Your task to perform on an android device: Add apple airpods pro to the cart on costco.com, then select checkout. Image 0: 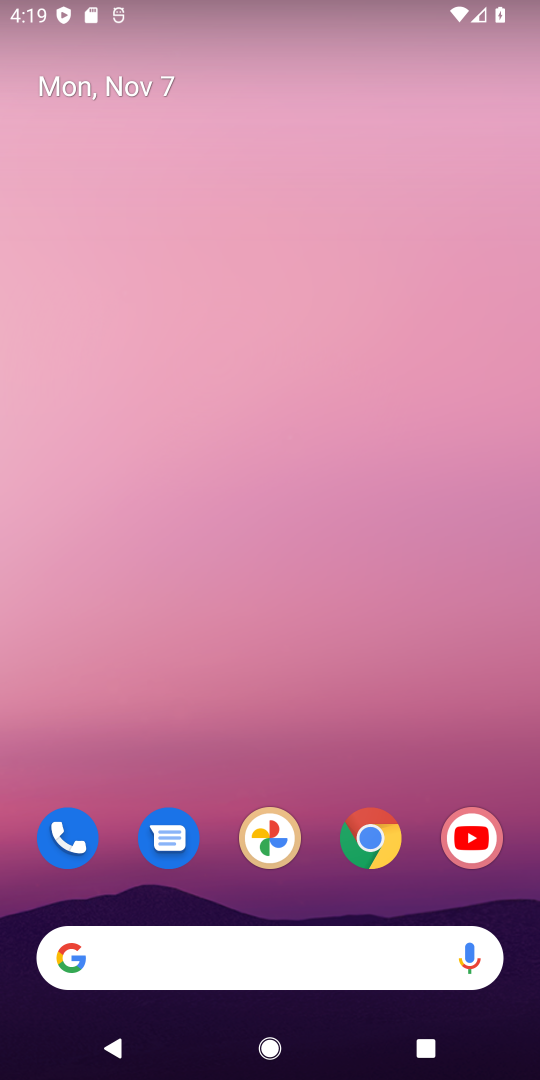
Step 0: click (367, 844)
Your task to perform on an android device: Add apple airpods pro to the cart on costco.com, then select checkout. Image 1: 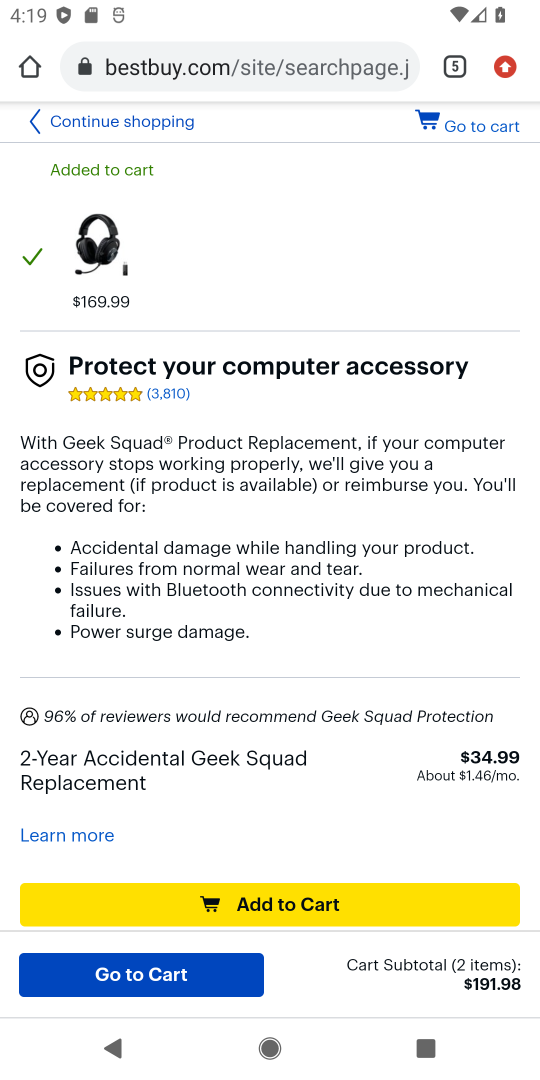
Step 1: click (452, 73)
Your task to perform on an android device: Add apple airpods pro to the cart on costco.com, then select checkout. Image 2: 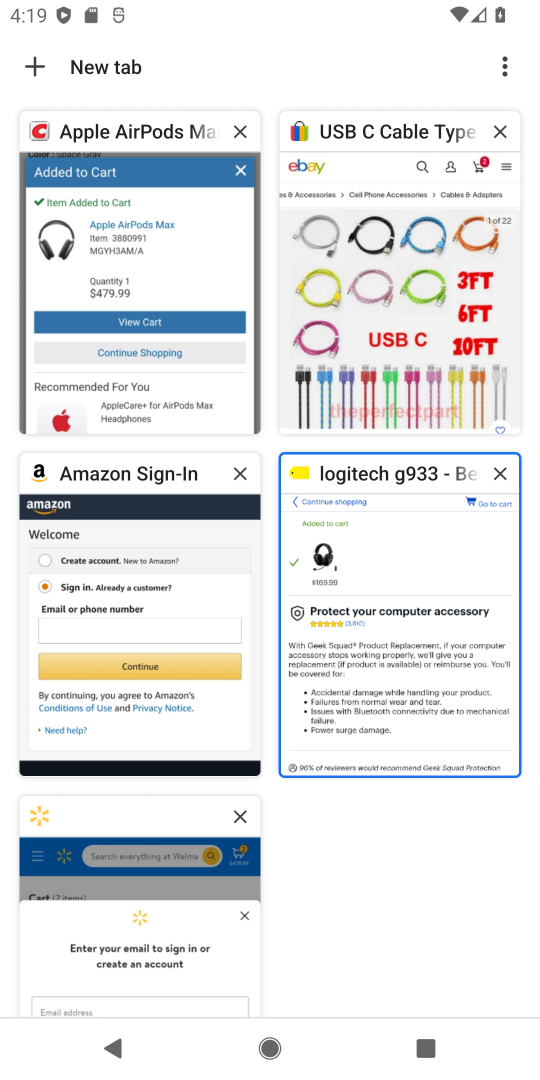
Step 2: click (115, 214)
Your task to perform on an android device: Add apple airpods pro to the cart on costco.com, then select checkout. Image 3: 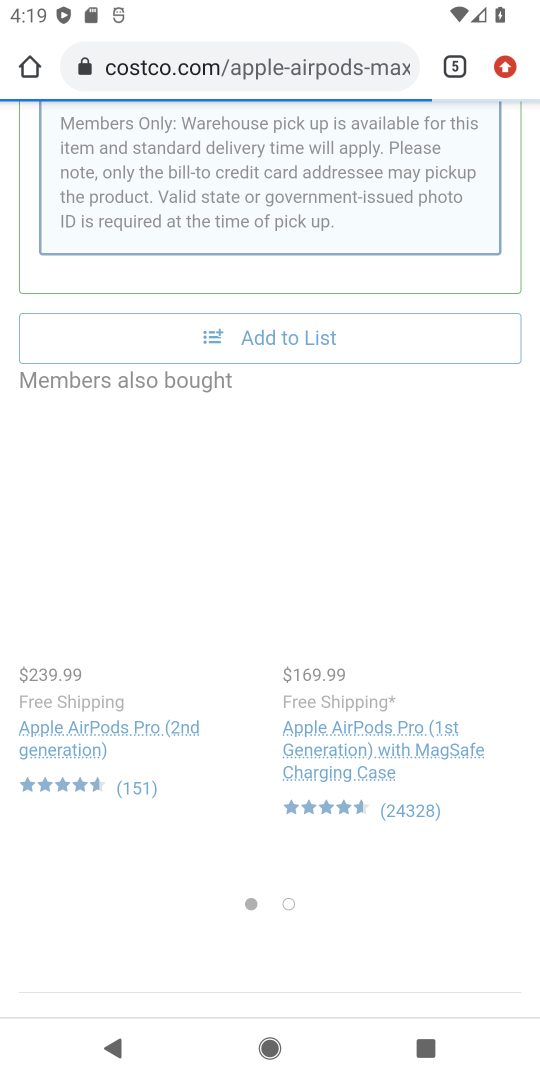
Step 3: drag from (402, 333) to (474, 991)
Your task to perform on an android device: Add apple airpods pro to the cart on costco.com, then select checkout. Image 4: 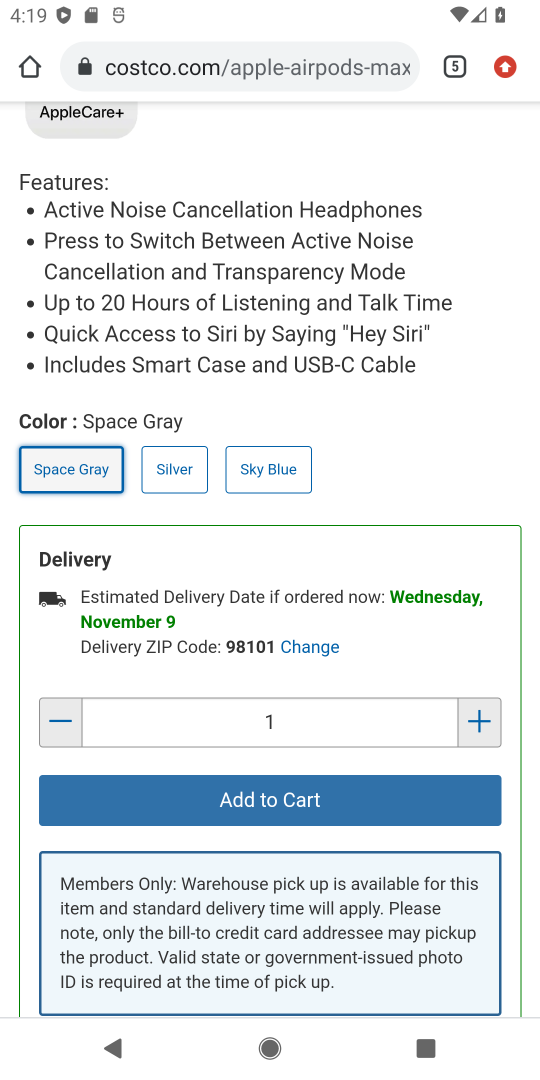
Step 4: drag from (233, 262) to (359, 838)
Your task to perform on an android device: Add apple airpods pro to the cart on costco.com, then select checkout. Image 5: 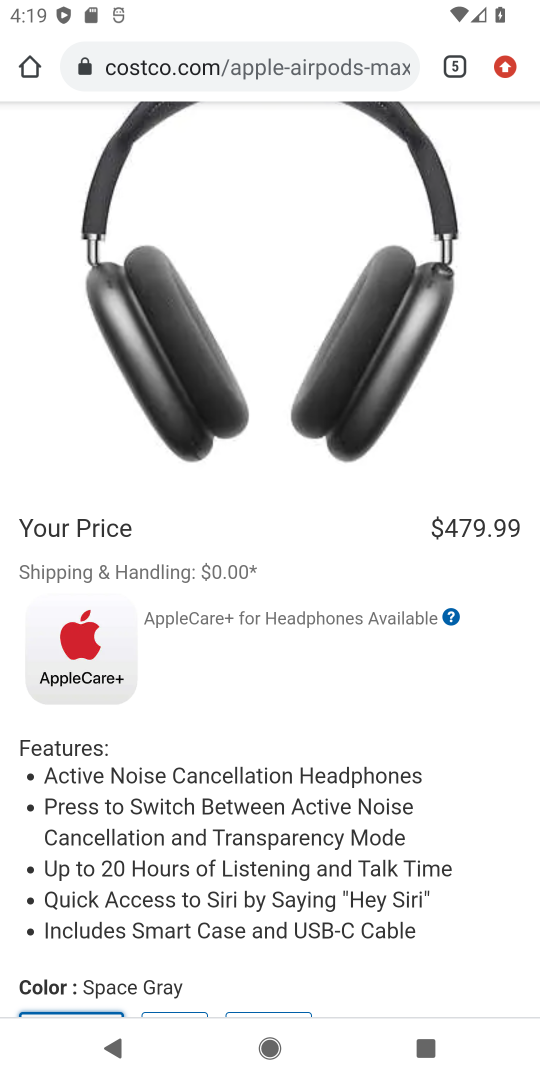
Step 5: click (363, 80)
Your task to perform on an android device: Add apple airpods pro to the cart on costco.com, then select checkout. Image 6: 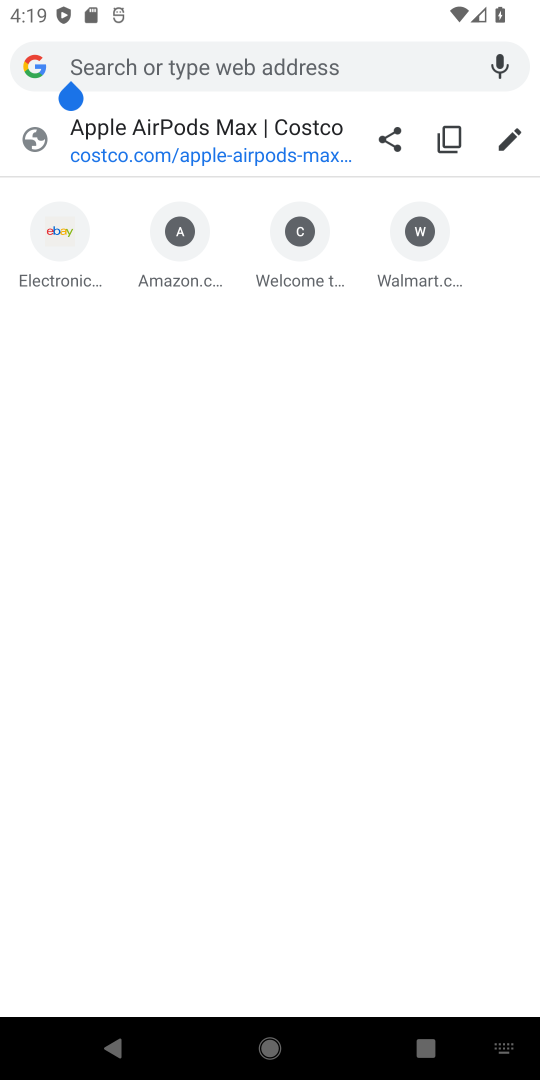
Step 6: drag from (356, 180) to (383, 691)
Your task to perform on an android device: Add apple airpods pro to the cart on costco.com, then select checkout. Image 7: 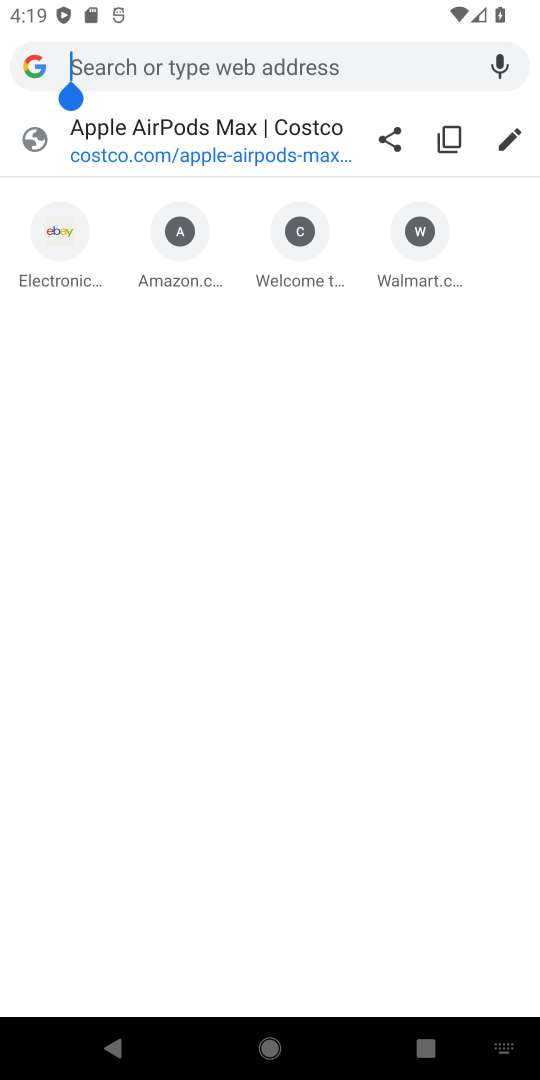
Step 7: click (277, 144)
Your task to perform on an android device: Add apple airpods pro to the cart on costco.com, then select checkout. Image 8: 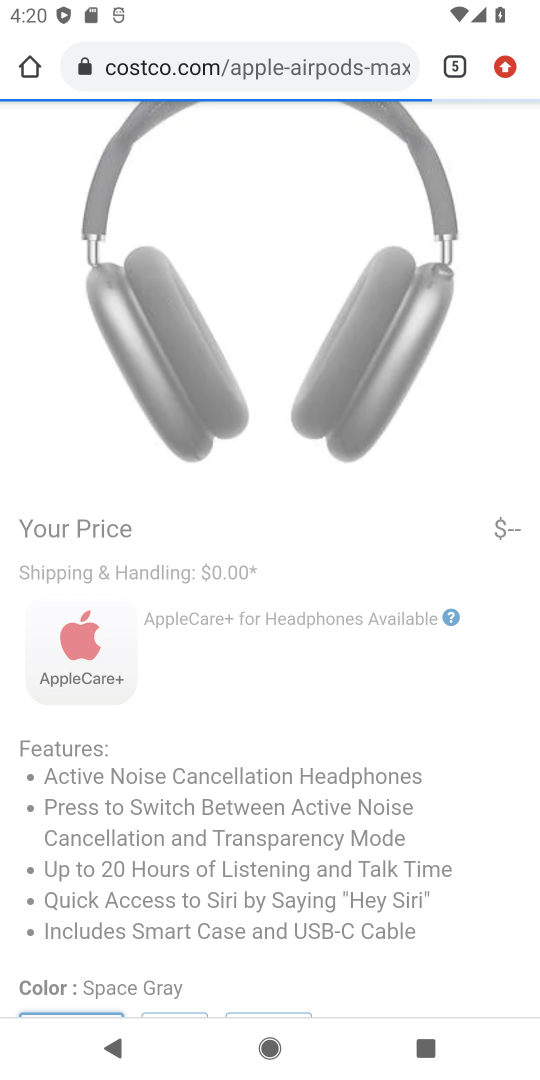
Step 8: drag from (198, 796) to (243, 293)
Your task to perform on an android device: Add apple airpods pro to the cart on costco.com, then select checkout. Image 9: 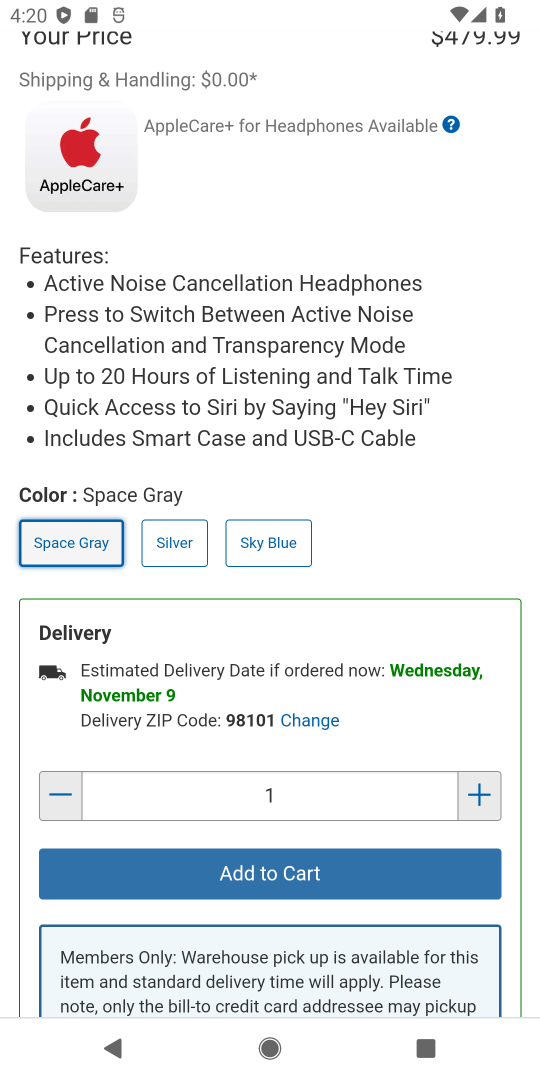
Step 9: click (313, 881)
Your task to perform on an android device: Add apple airpods pro to the cart on costco.com, then select checkout. Image 10: 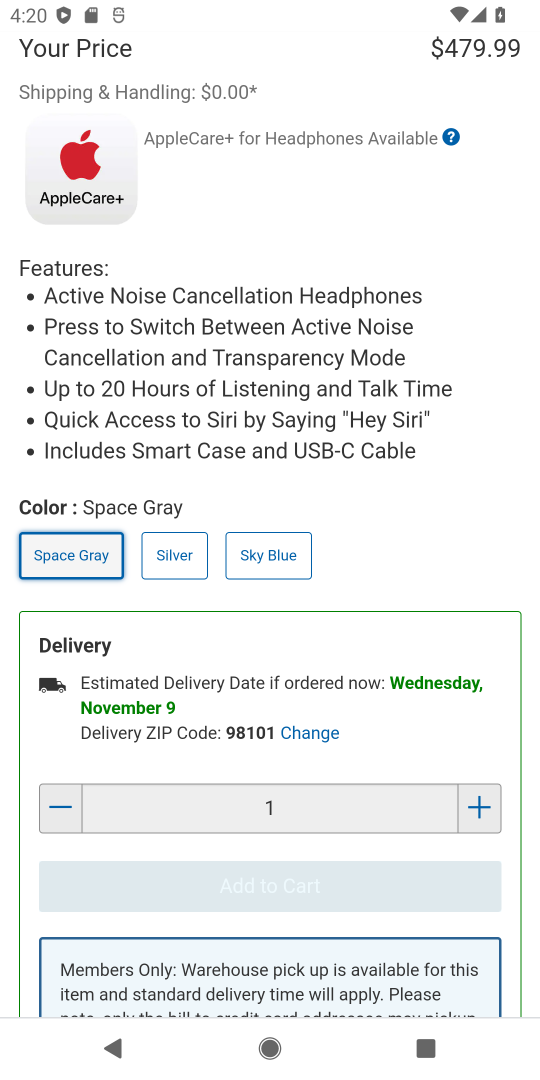
Step 10: drag from (397, 301) to (447, 771)
Your task to perform on an android device: Add apple airpods pro to the cart on costco.com, then select checkout. Image 11: 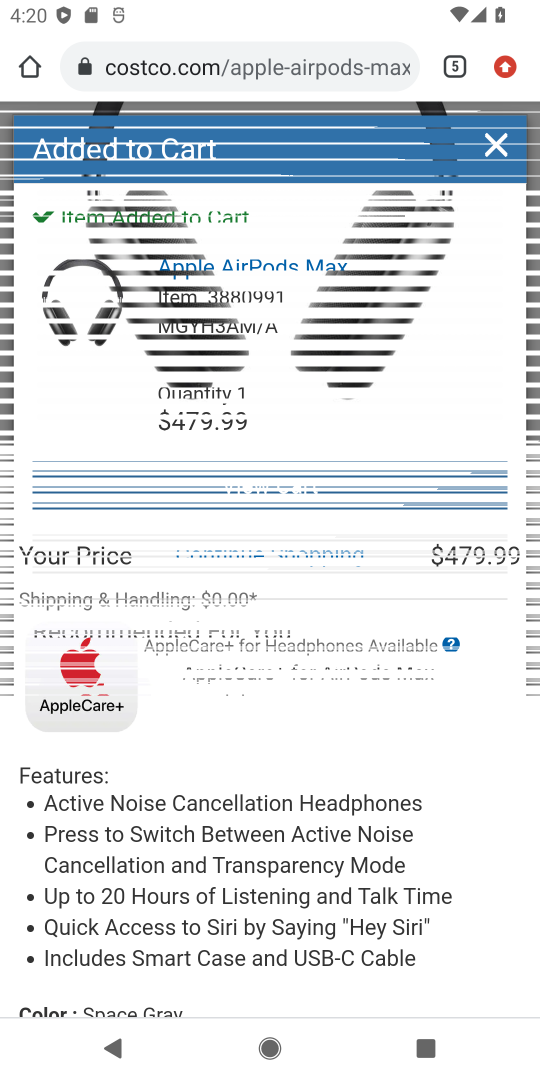
Step 11: click (315, 495)
Your task to perform on an android device: Add apple airpods pro to the cart on costco.com, then select checkout. Image 12: 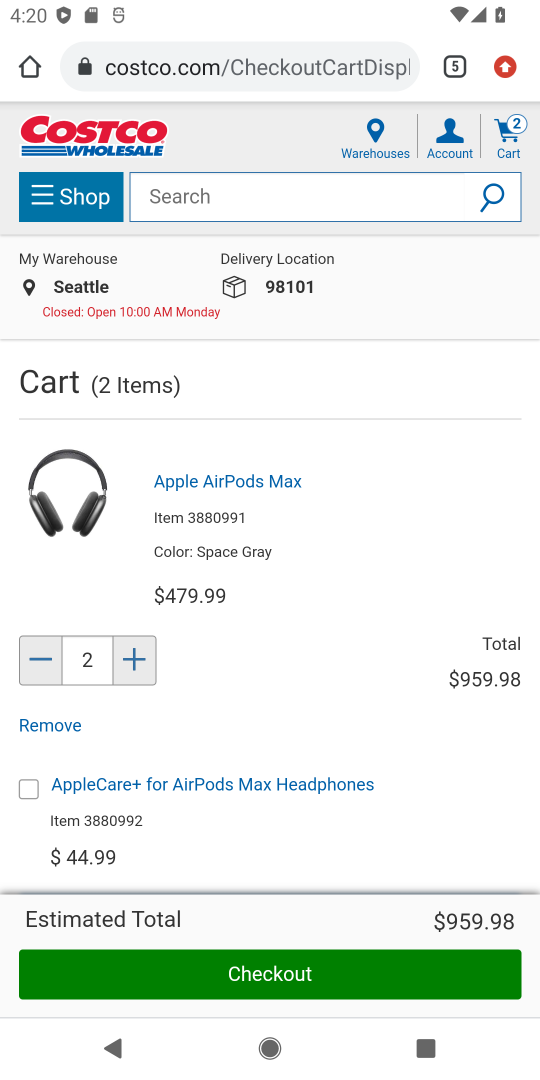
Step 12: click (303, 963)
Your task to perform on an android device: Add apple airpods pro to the cart on costco.com, then select checkout. Image 13: 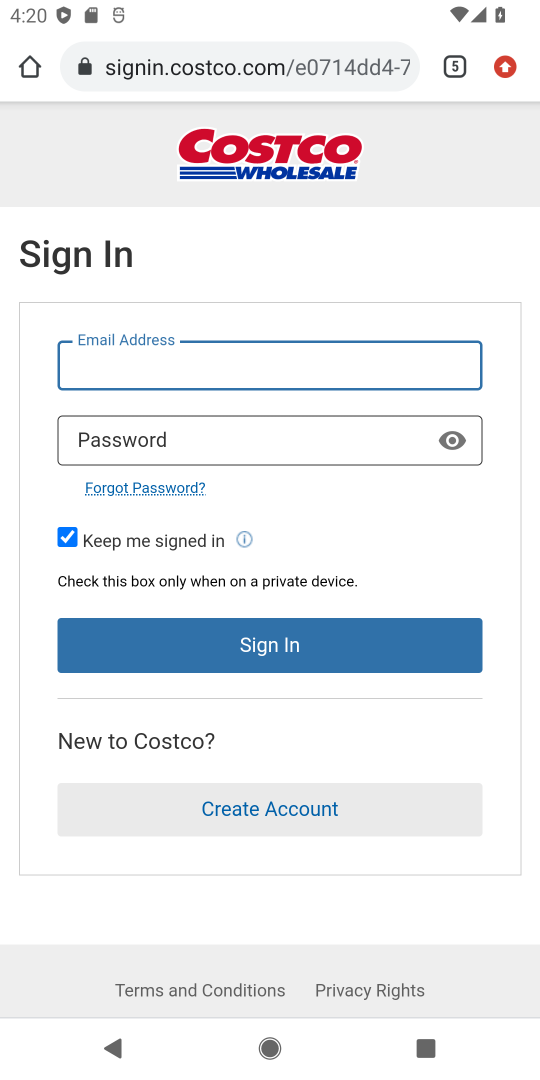
Step 13: task complete